Your task to perform on an android device: Open the calendar app, open the side menu, and click the "Day" option Image 0: 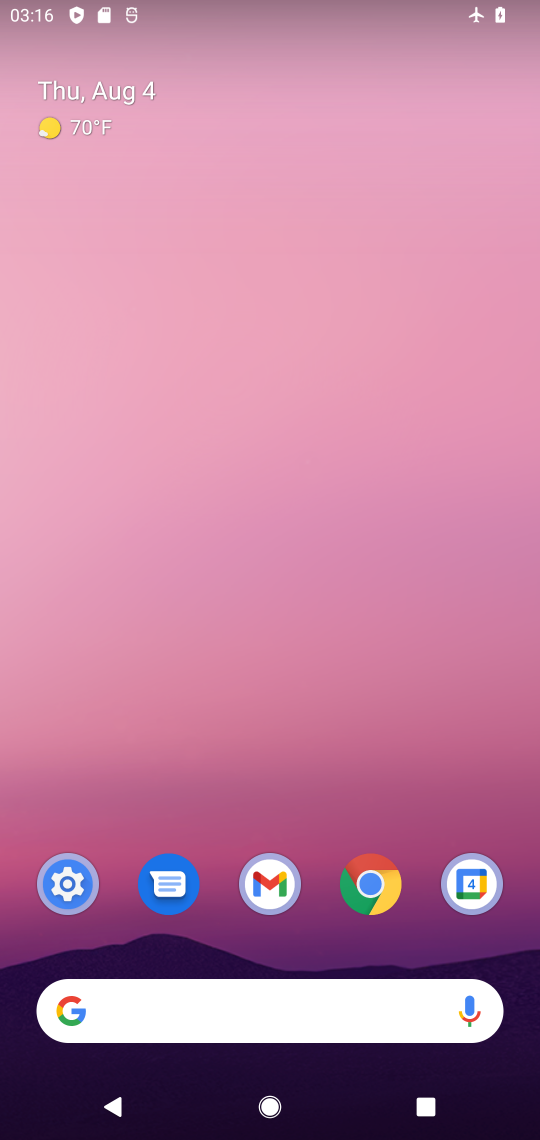
Step 0: press home button
Your task to perform on an android device: Open the calendar app, open the side menu, and click the "Day" option Image 1: 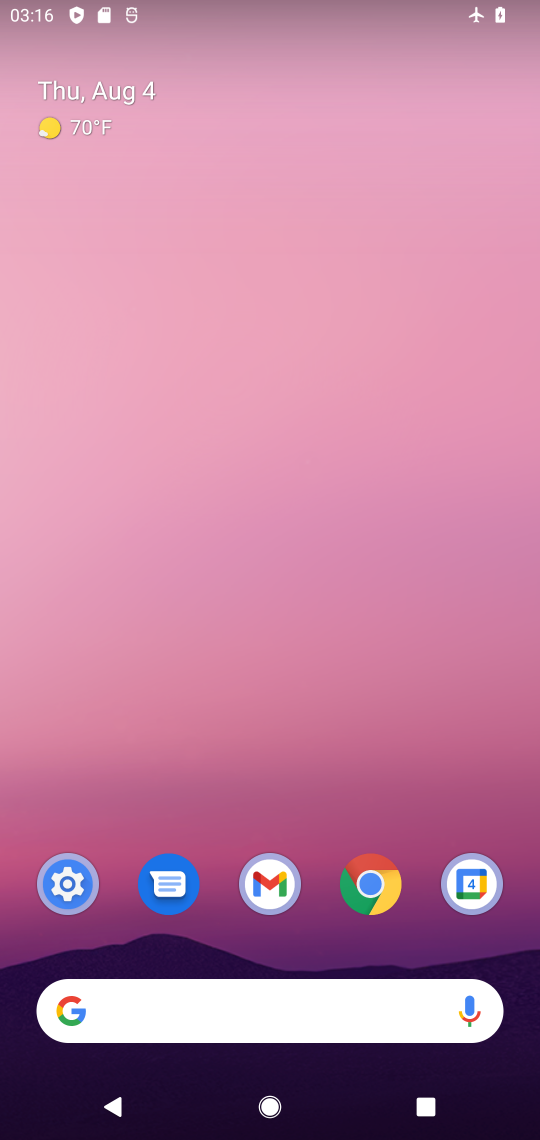
Step 1: drag from (309, 785) to (326, 245)
Your task to perform on an android device: Open the calendar app, open the side menu, and click the "Day" option Image 2: 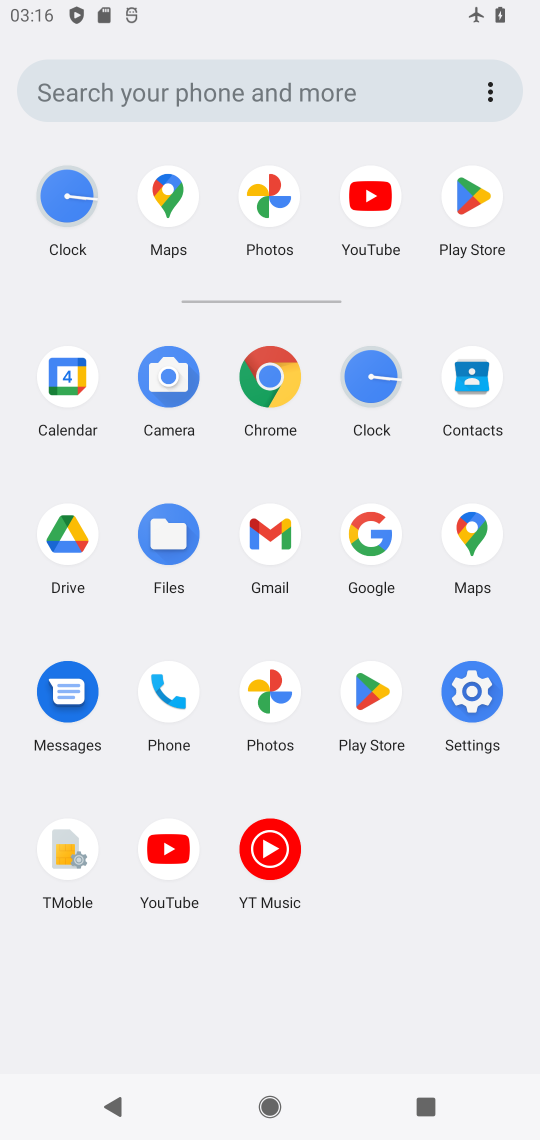
Step 2: click (54, 380)
Your task to perform on an android device: Open the calendar app, open the side menu, and click the "Day" option Image 3: 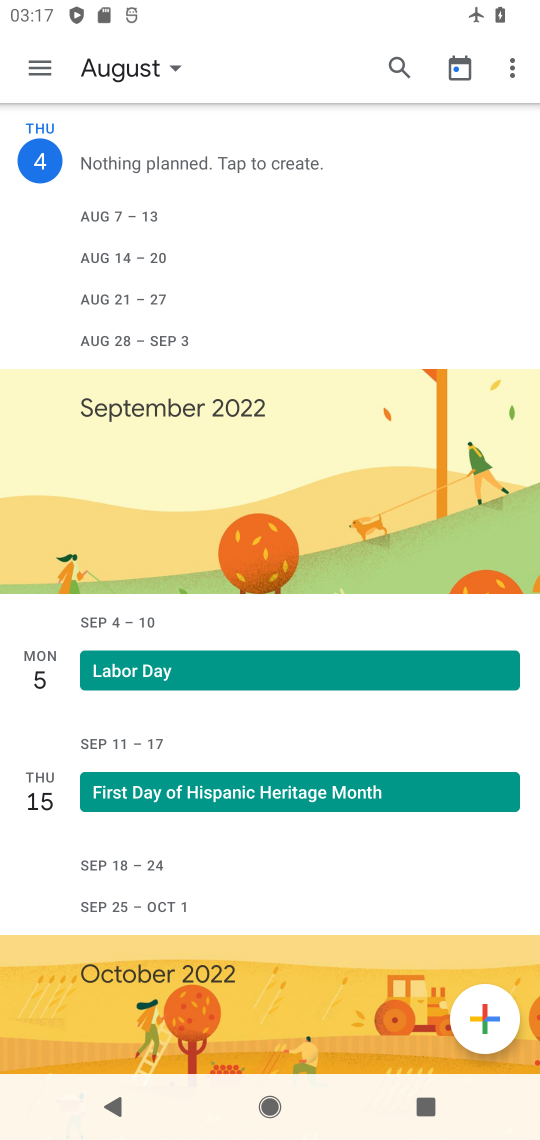
Step 3: click (40, 59)
Your task to perform on an android device: Open the calendar app, open the side menu, and click the "Day" option Image 4: 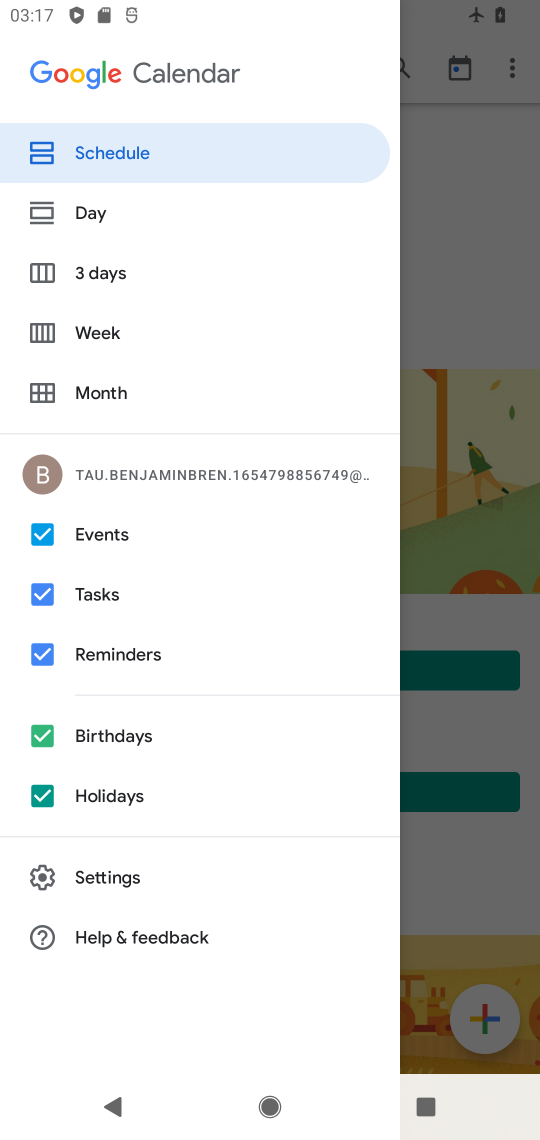
Step 4: click (110, 220)
Your task to perform on an android device: Open the calendar app, open the side menu, and click the "Day" option Image 5: 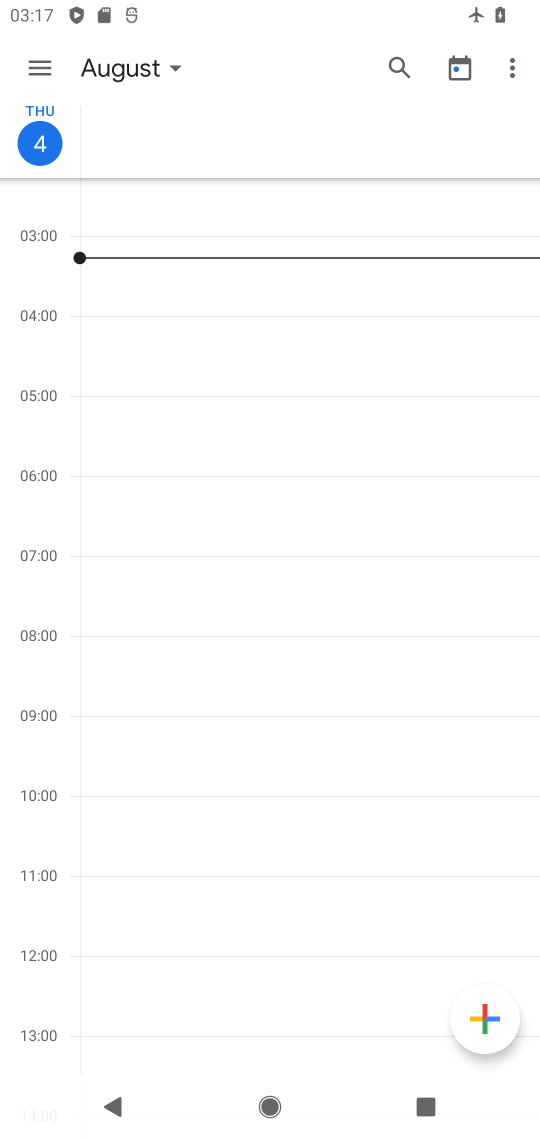
Step 5: task complete